Your task to perform on an android device: Open privacy settings Image 0: 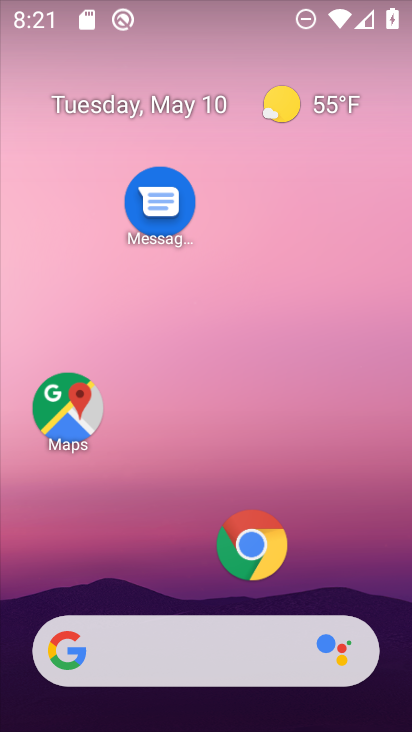
Step 0: drag from (146, 524) to (219, 112)
Your task to perform on an android device: Open privacy settings Image 1: 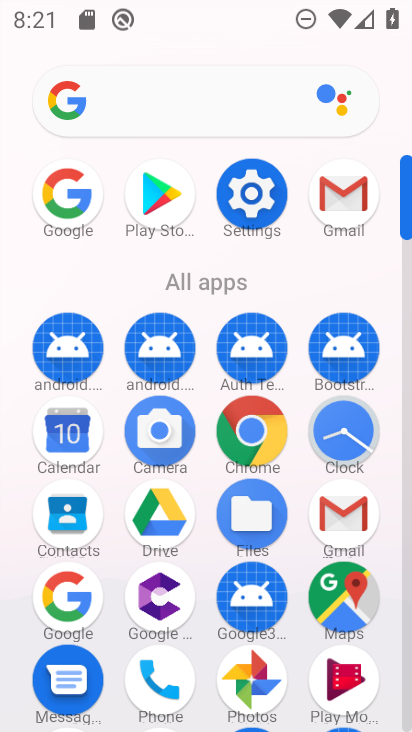
Step 1: click (242, 195)
Your task to perform on an android device: Open privacy settings Image 2: 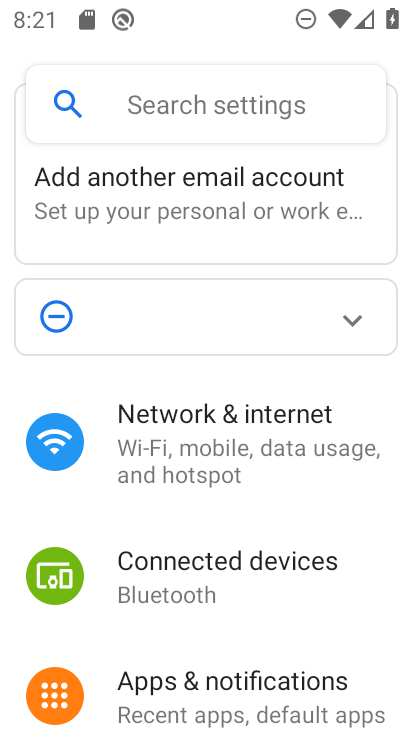
Step 2: drag from (219, 636) to (241, 232)
Your task to perform on an android device: Open privacy settings Image 3: 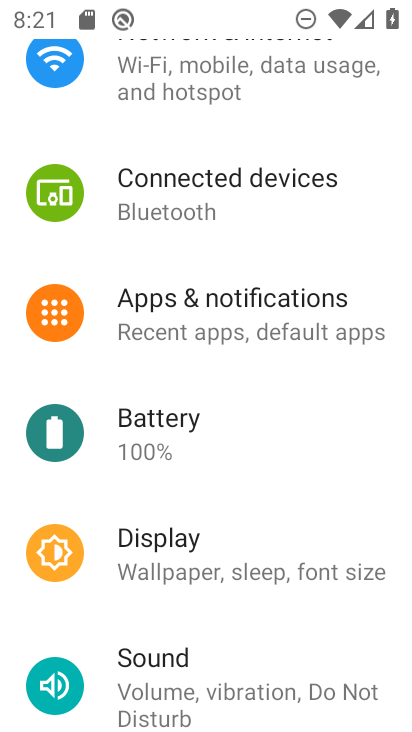
Step 3: drag from (252, 694) to (261, 358)
Your task to perform on an android device: Open privacy settings Image 4: 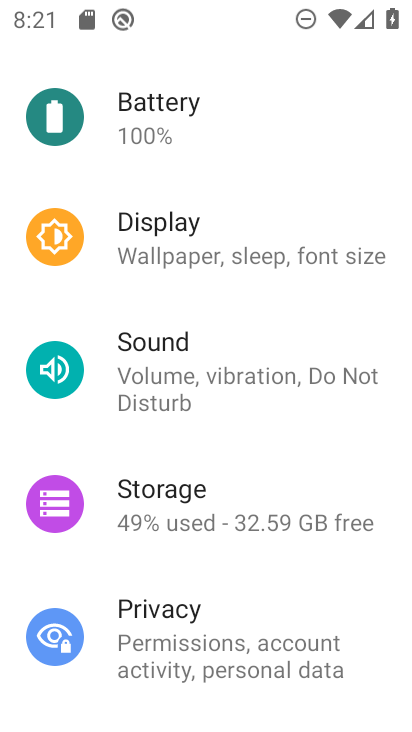
Step 4: click (159, 650)
Your task to perform on an android device: Open privacy settings Image 5: 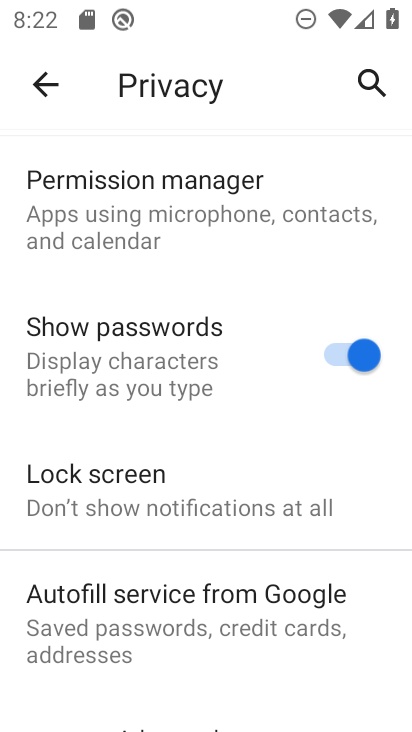
Step 5: task complete